Your task to perform on an android device: empty trash in google photos Image 0: 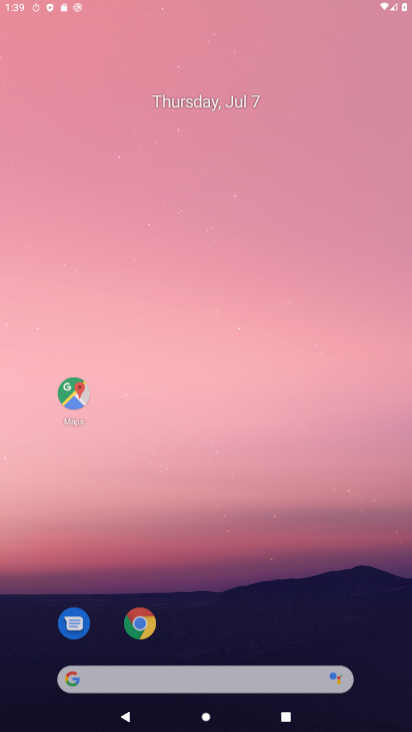
Step 0: press home button
Your task to perform on an android device: empty trash in google photos Image 1: 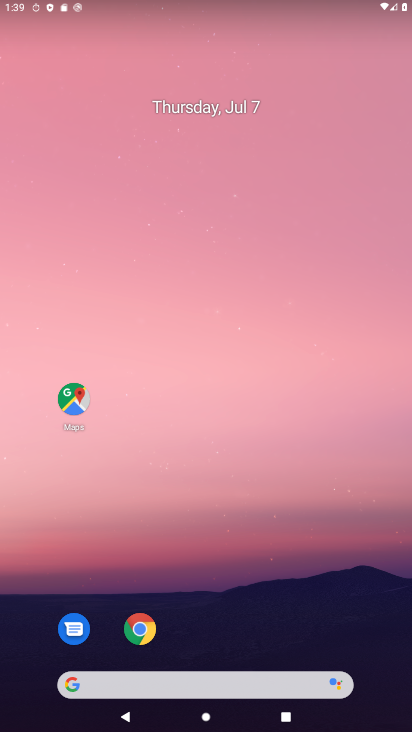
Step 1: drag from (285, 616) to (119, 236)
Your task to perform on an android device: empty trash in google photos Image 2: 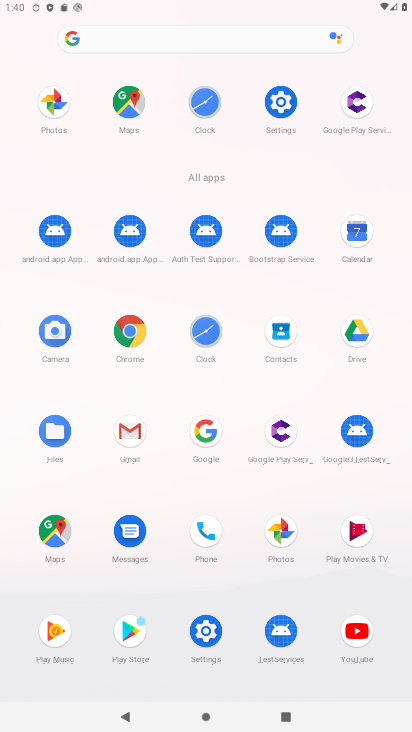
Step 2: click (292, 538)
Your task to perform on an android device: empty trash in google photos Image 3: 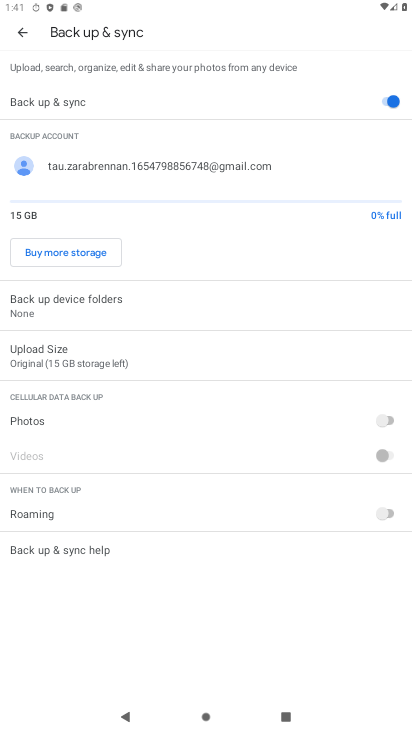
Step 3: click (18, 42)
Your task to perform on an android device: empty trash in google photos Image 4: 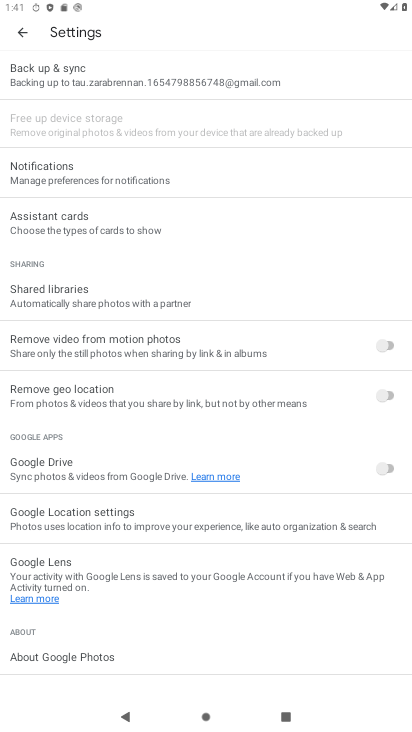
Step 4: click (23, 32)
Your task to perform on an android device: empty trash in google photos Image 5: 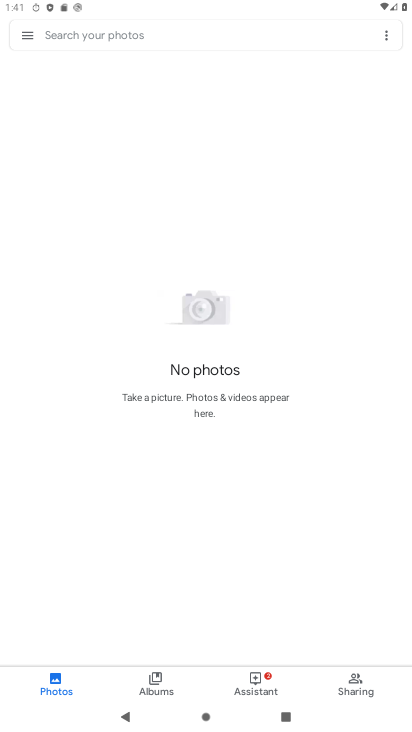
Step 5: click (384, 30)
Your task to perform on an android device: empty trash in google photos Image 6: 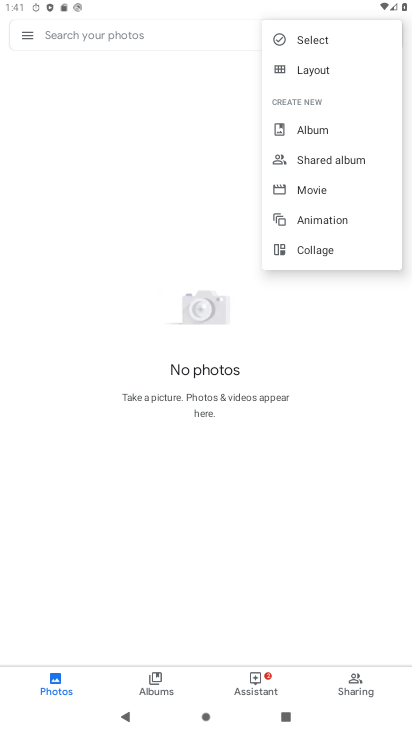
Step 6: click (293, 434)
Your task to perform on an android device: empty trash in google photos Image 7: 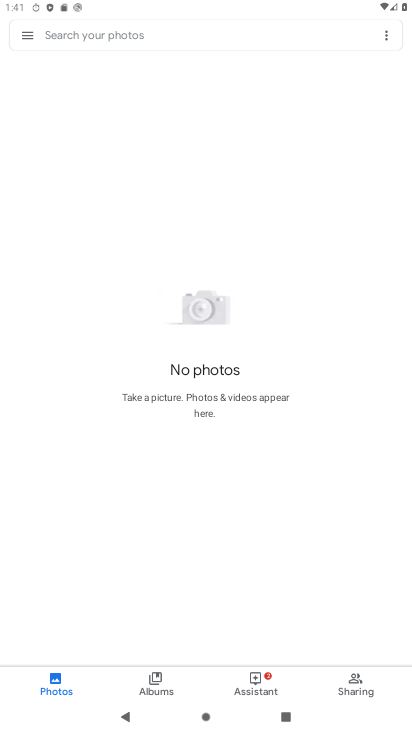
Step 7: click (168, 686)
Your task to perform on an android device: empty trash in google photos Image 8: 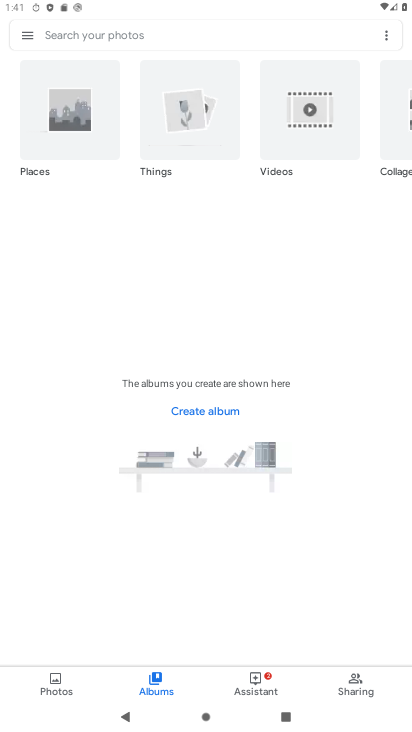
Step 8: drag from (296, 172) to (3, 625)
Your task to perform on an android device: empty trash in google photos Image 9: 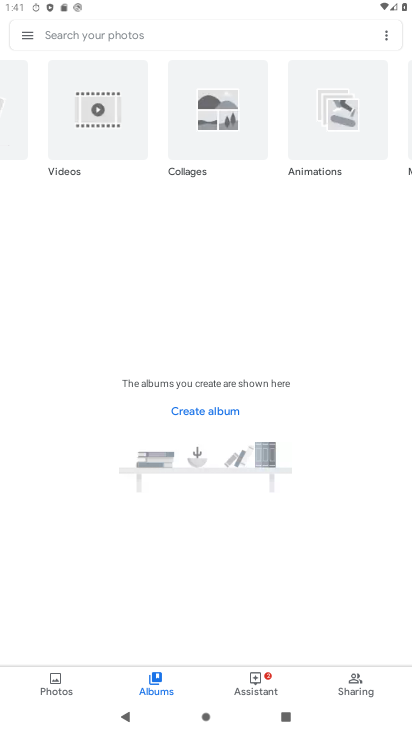
Step 9: click (385, 44)
Your task to perform on an android device: empty trash in google photos Image 10: 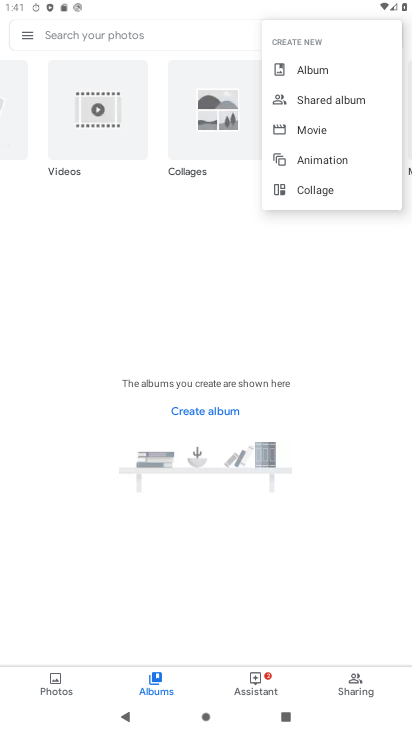
Step 10: click (337, 247)
Your task to perform on an android device: empty trash in google photos Image 11: 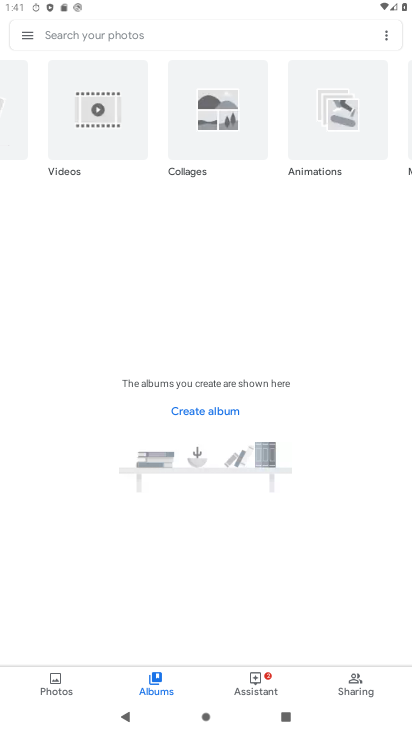
Step 11: click (26, 684)
Your task to perform on an android device: empty trash in google photos Image 12: 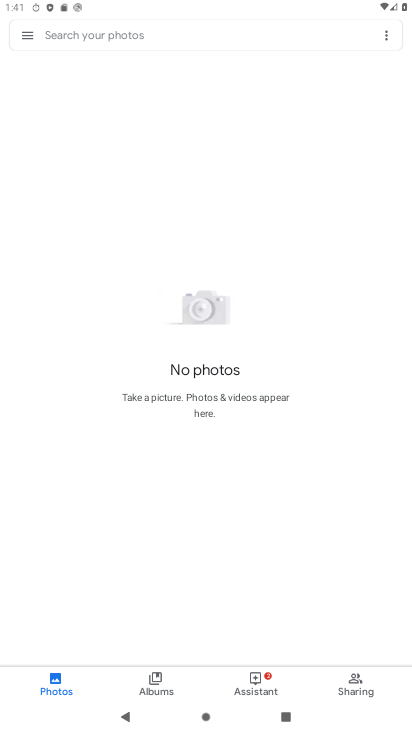
Step 12: click (23, 29)
Your task to perform on an android device: empty trash in google photos Image 13: 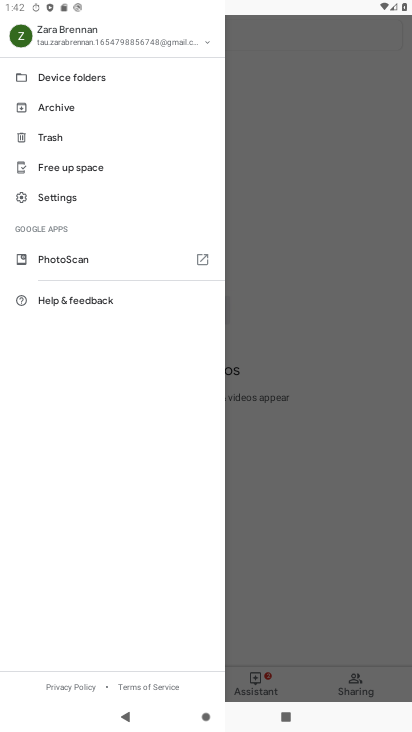
Step 13: click (35, 139)
Your task to perform on an android device: empty trash in google photos Image 14: 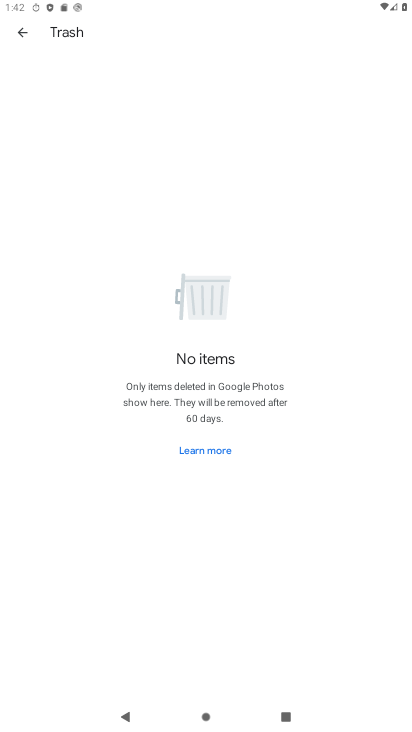
Step 14: task complete